Your task to perform on an android device: What's the weather? Image 0: 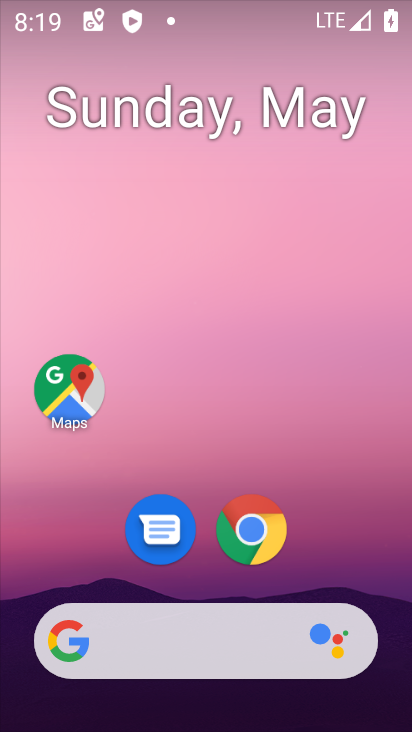
Step 0: click (191, 618)
Your task to perform on an android device: What's the weather? Image 1: 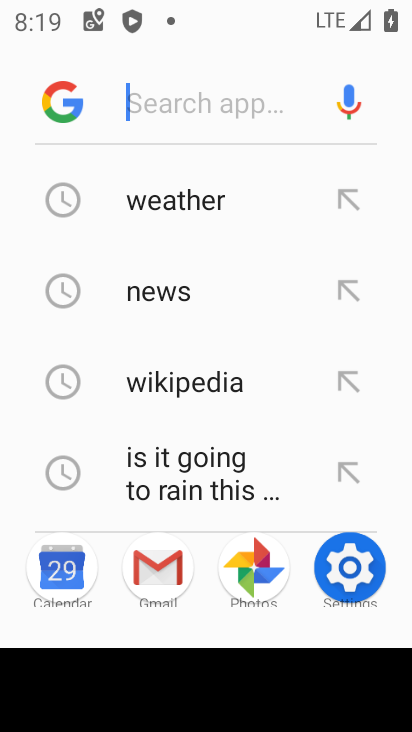
Step 1: click (199, 210)
Your task to perform on an android device: What's the weather? Image 2: 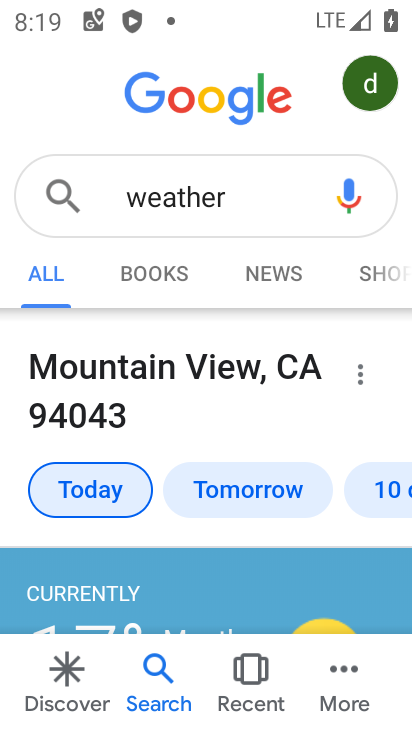
Step 2: task complete